Your task to perform on an android device: turn on showing notifications on the lock screen Image 0: 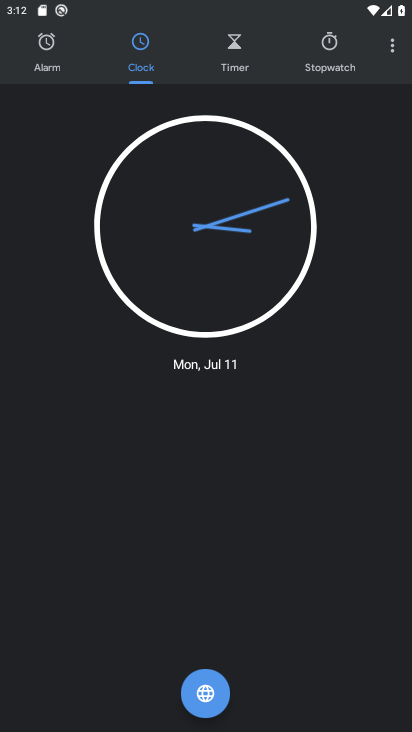
Step 0: press home button
Your task to perform on an android device: turn on showing notifications on the lock screen Image 1: 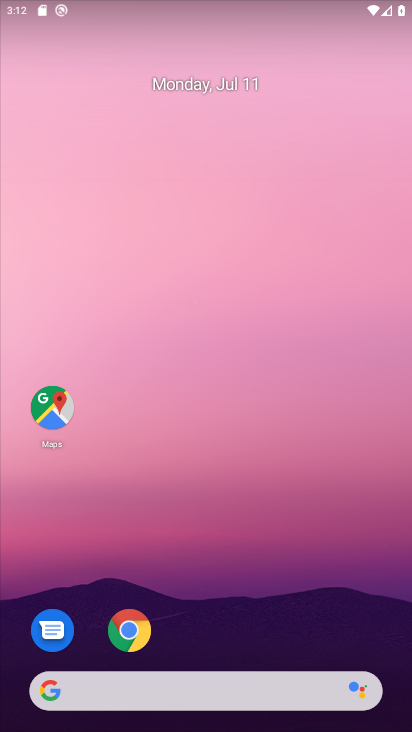
Step 1: drag from (270, 631) to (257, 139)
Your task to perform on an android device: turn on showing notifications on the lock screen Image 2: 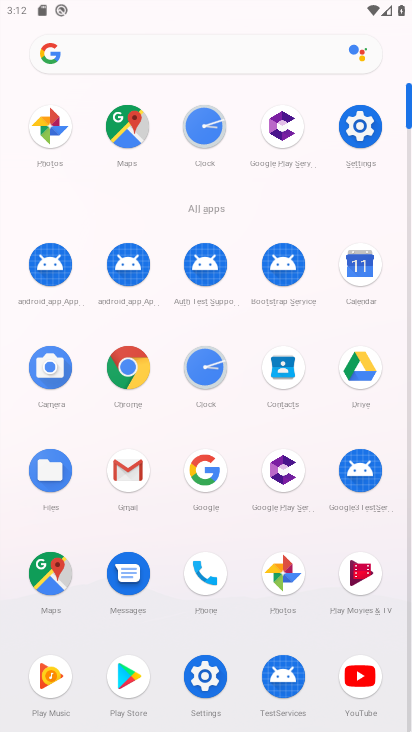
Step 2: click (339, 139)
Your task to perform on an android device: turn on showing notifications on the lock screen Image 3: 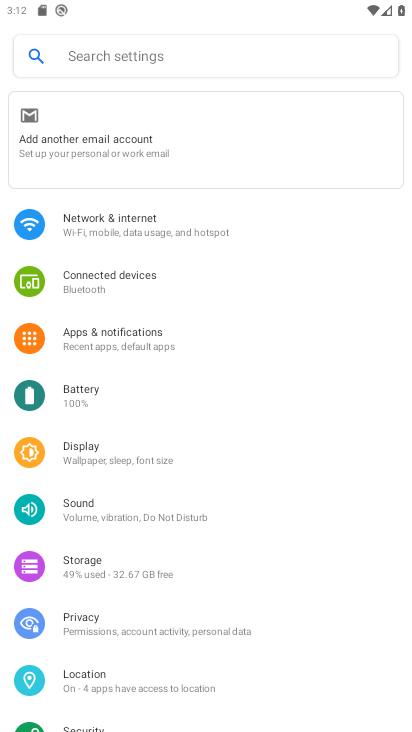
Step 3: click (147, 344)
Your task to perform on an android device: turn on showing notifications on the lock screen Image 4: 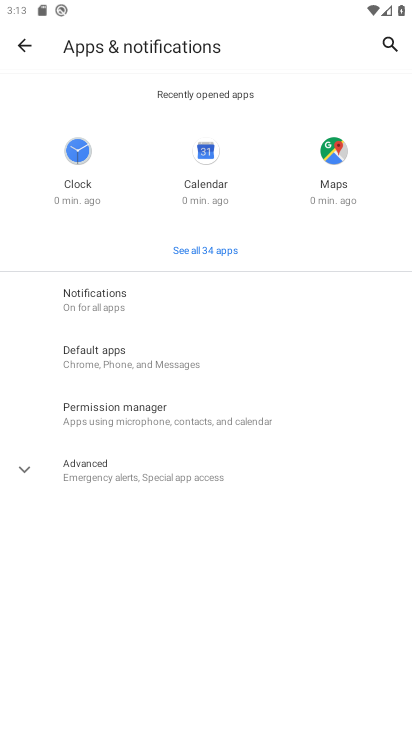
Step 4: click (137, 462)
Your task to perform on an android device: turn on showing notifications on the lock screen Image 5: 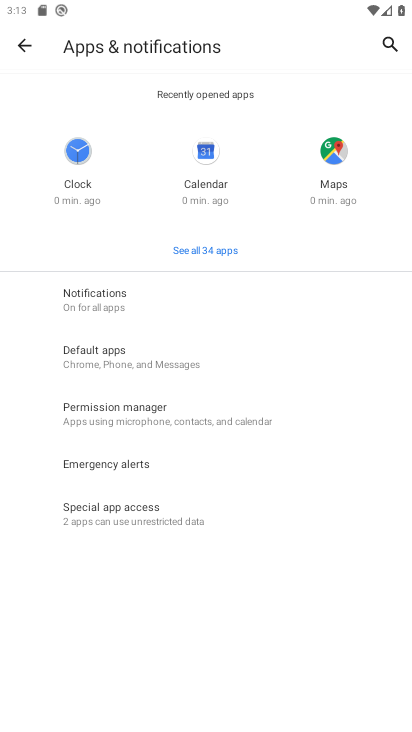
Step 5: click (84, 286)
Your task to perform on an android device: turn on showing notifications on the lock screen Image 6: 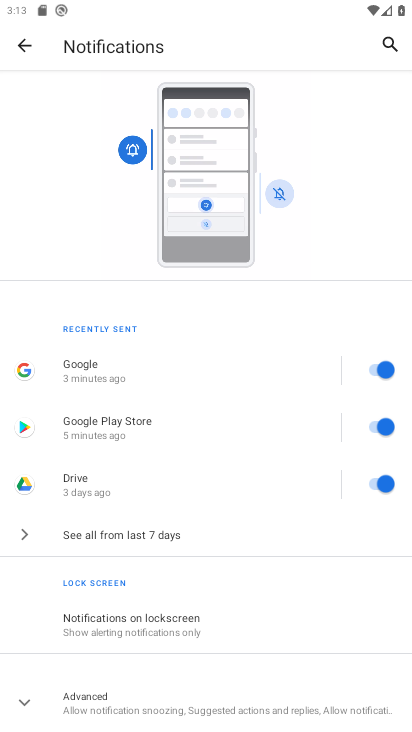
Step 6: click (185, 637)
Your task to perform on an android device: turn on showing notifications on the lock screen Image 7: 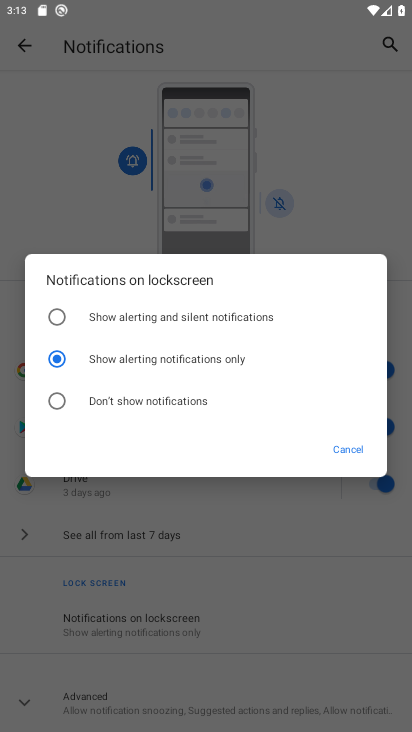
Step 7: click (215, 350)
Your task to perform on an android device: turn on showing notifications on the lock screen Image 8: 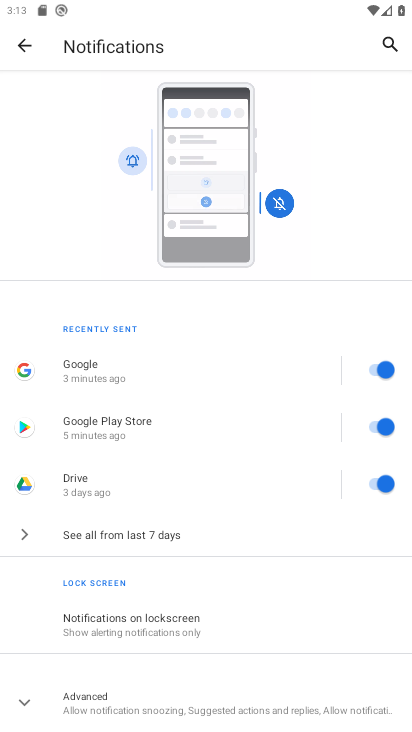
Step 8: task complete